Your task to perform on an android device: Empty the shopping cart on bestbuy.com. Add macbook pro 15 inch to the cart on bestbuy.com Image 0: 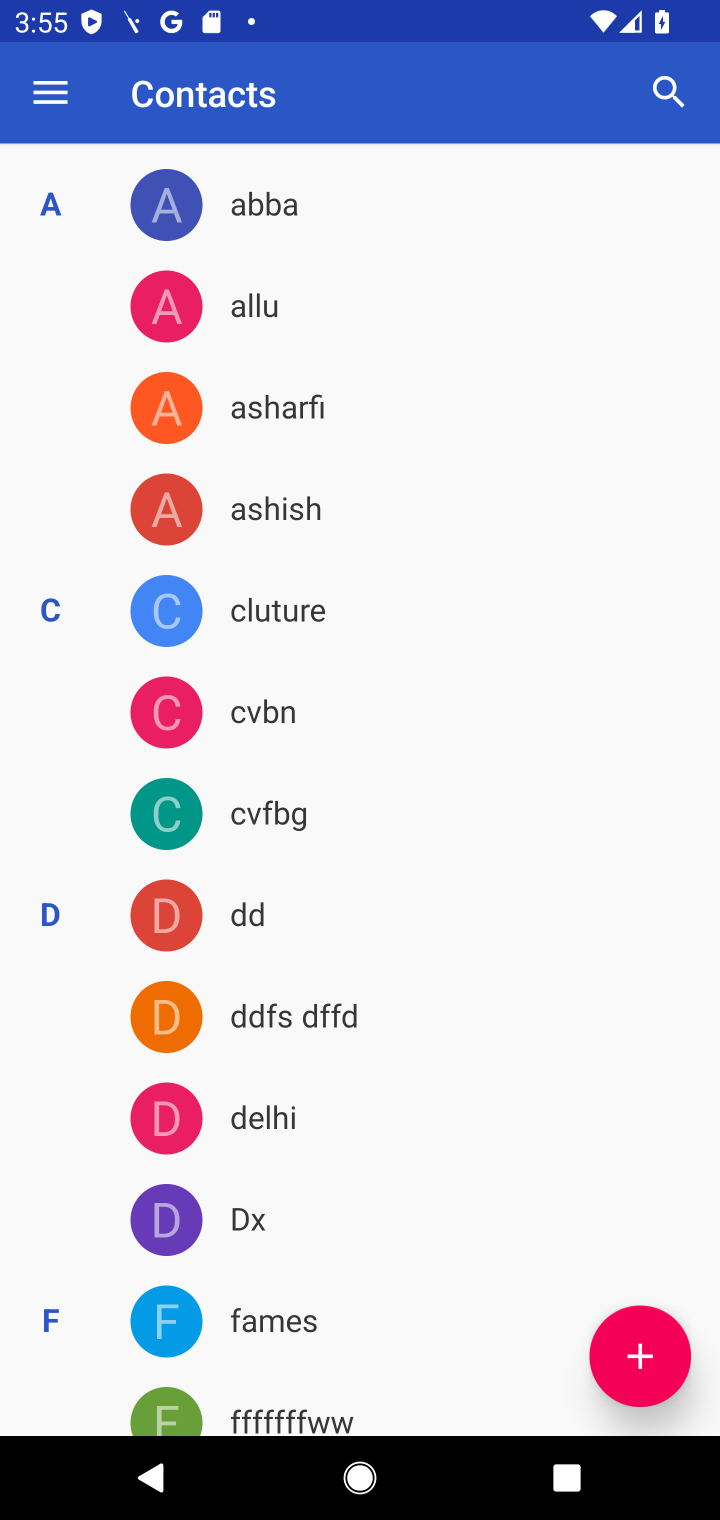
Step 0: press home button
Your task to perform on an android device: Empty the shopping cart on bestbuy.com. Add macbook pro 15 inch to the cart on bestbuy.com Image 1: 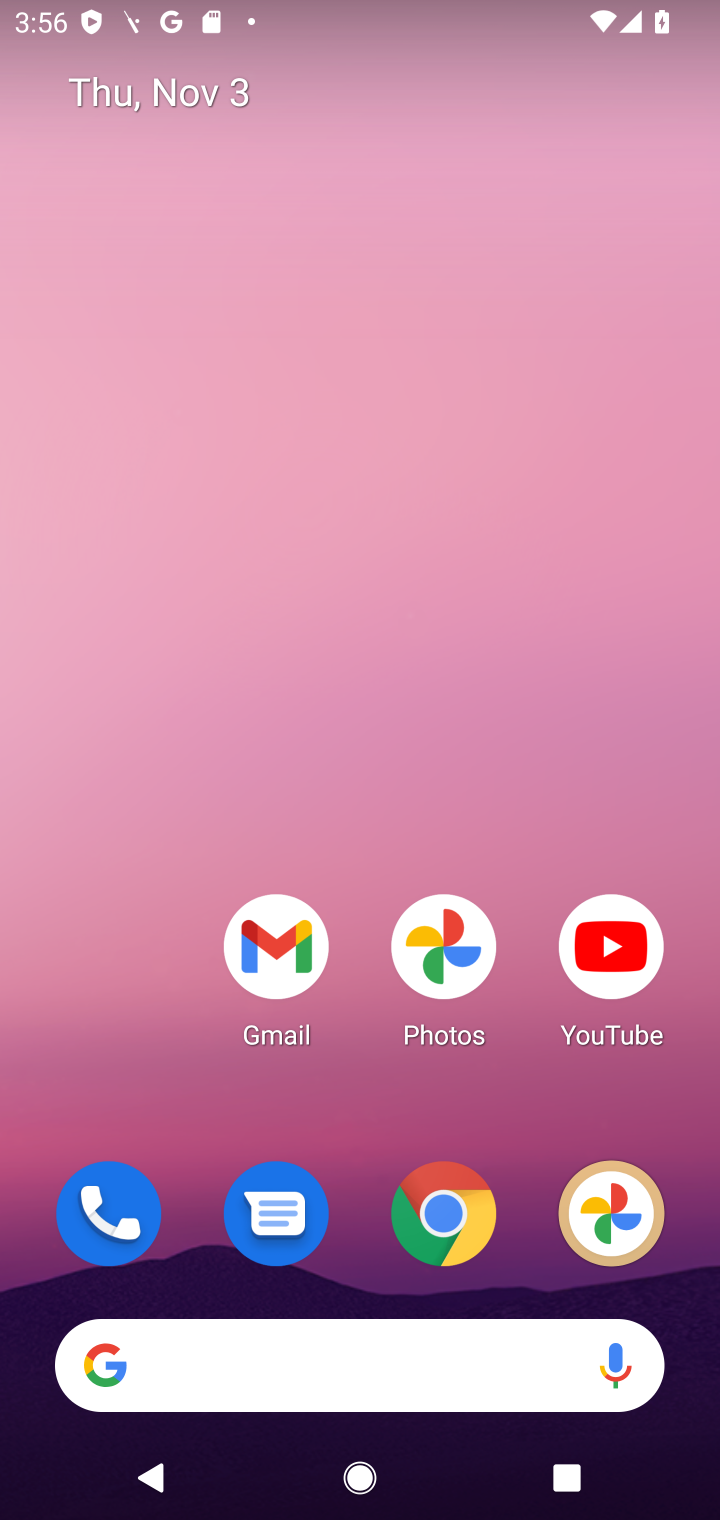
Step 1: click (449, 1242)
Your task to perform on an android device: Empty the shopping cart on bestbuy.com. Add macbook pro 15 inch to the cart on bestbuy.com Image 2: 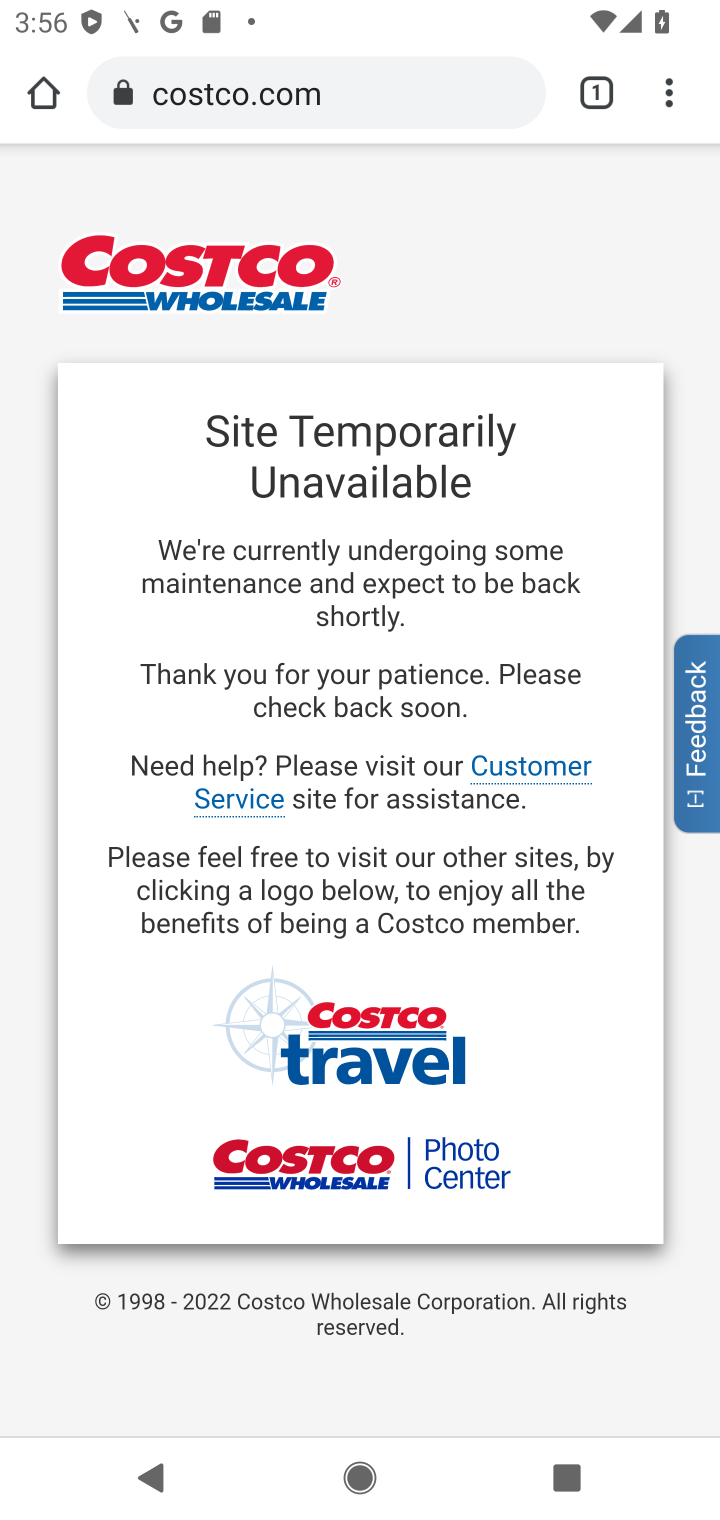
Step 2: click (301, 92)
Your task to perform on an android device: Empty the shopping cart on bestbuy.com. Add macbook pro 15 inch to the cart on bestbuy.com Image 3: 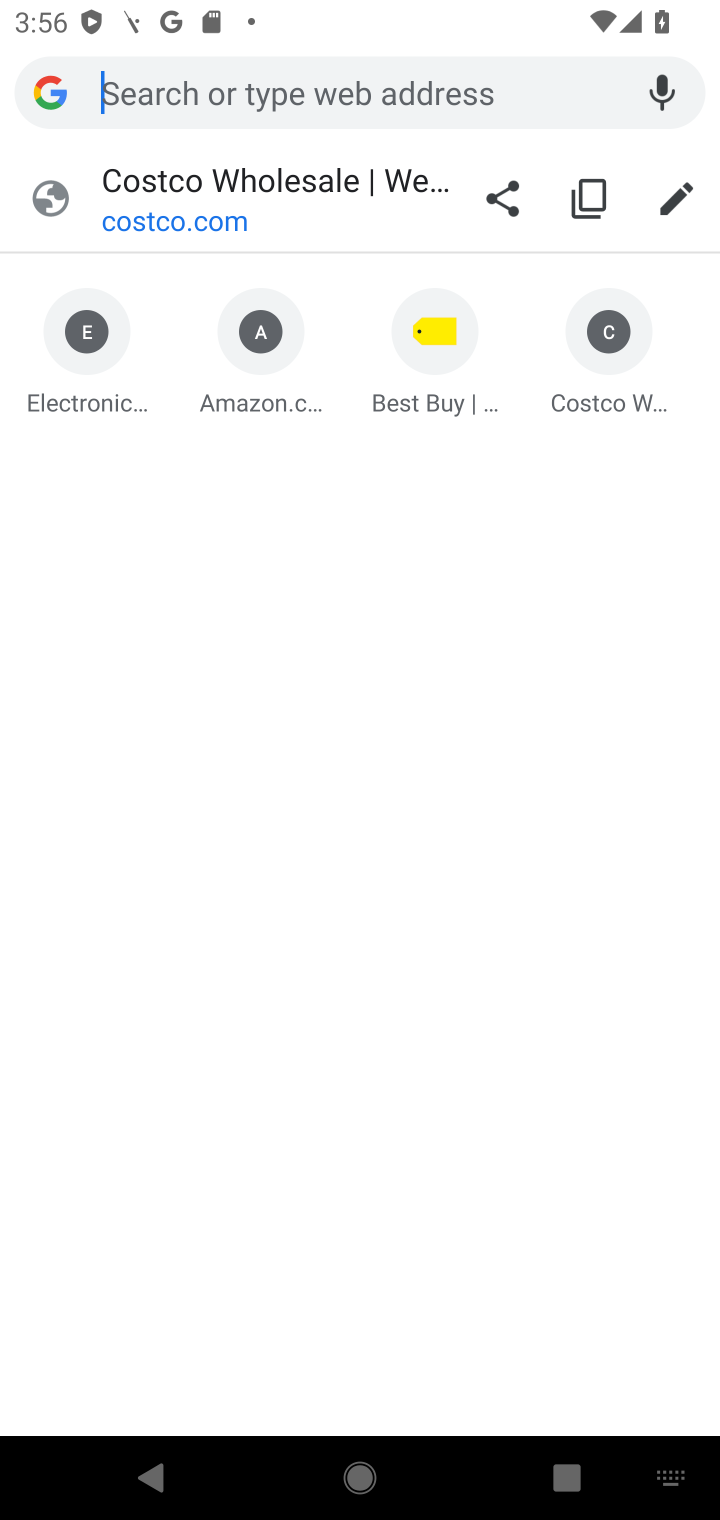
Step 3: type "bestbuy.com"
Your task to perform on an android device: Empty the shopping cart on bestbuy.com. Add macbook pro 15 inch to the cart on bestbuy.com Image 4: 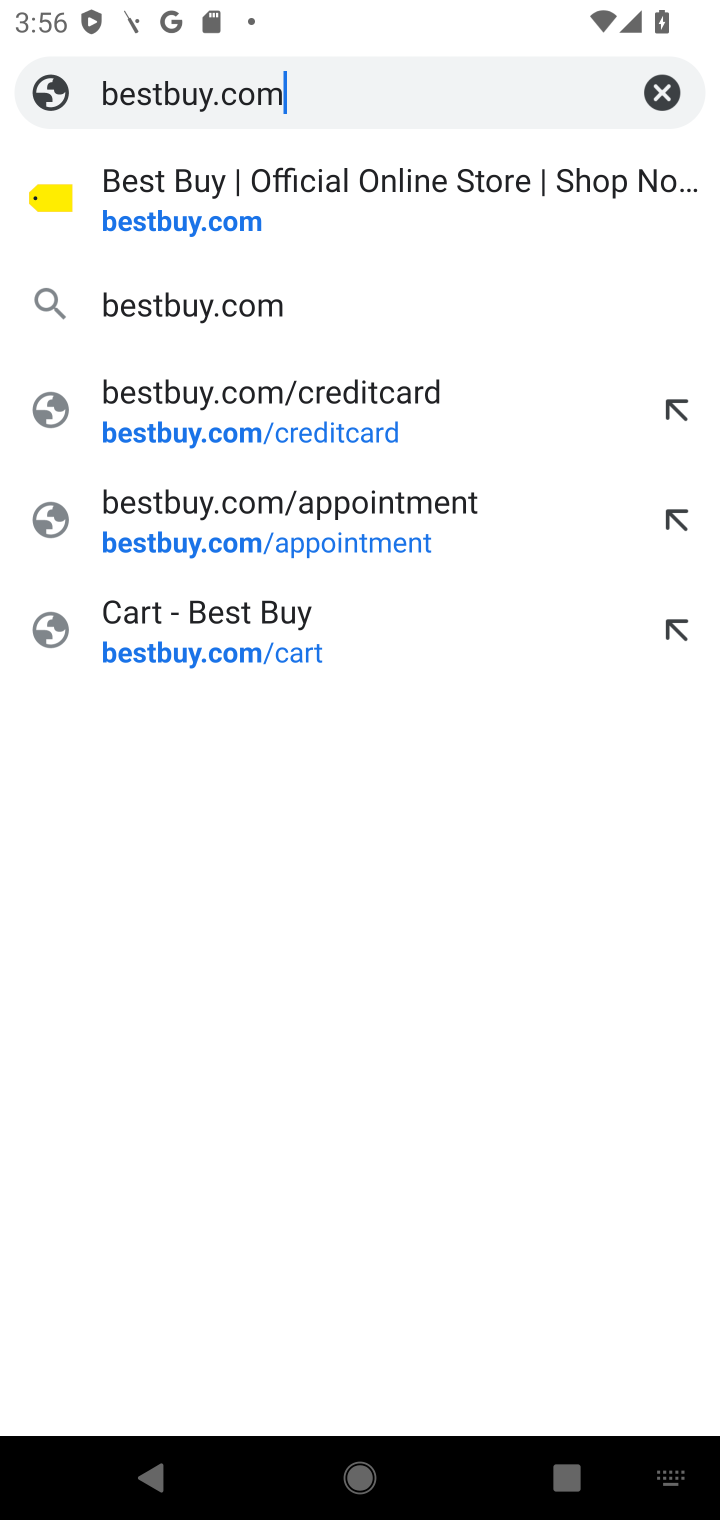
Step 4: click (168, 218)
Your task to perform on an android device: Empty the shopping cart on bestbuy.com. Add macbook pro 15 inch to the cart on bestbuy.com Image 5: 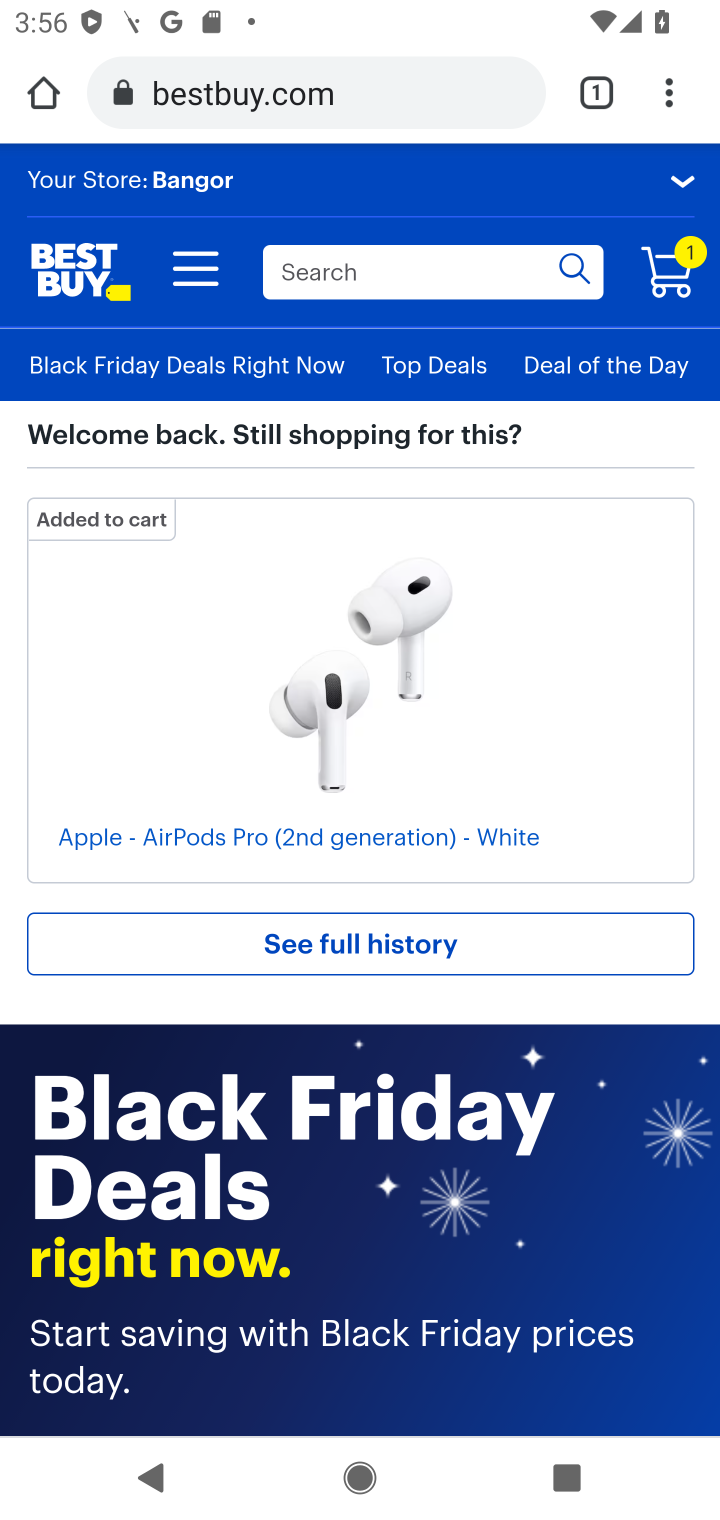
Step 5: click (675, 272)
Your task to perform on an android device: Empty the shopping cart on bestbuy.com. Add macbook pro 15 inch to the cart on bestbuy.com Image 6: 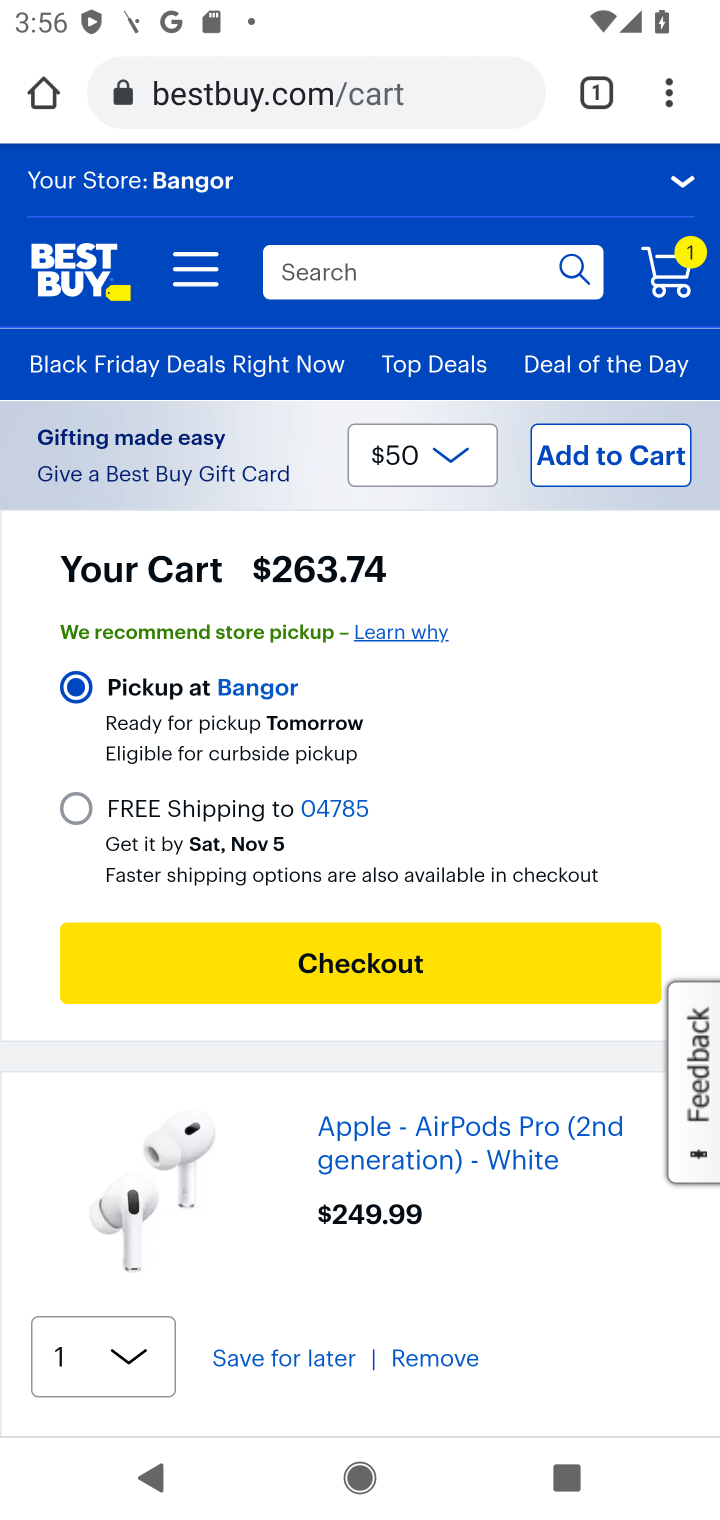
Step 6: click (444, 1360)
Your task to perform on an android device: Empty the shopping cart on bestbuy.com. Add macbook pro 15 inch to the cart on bestbuy.com Image 7: 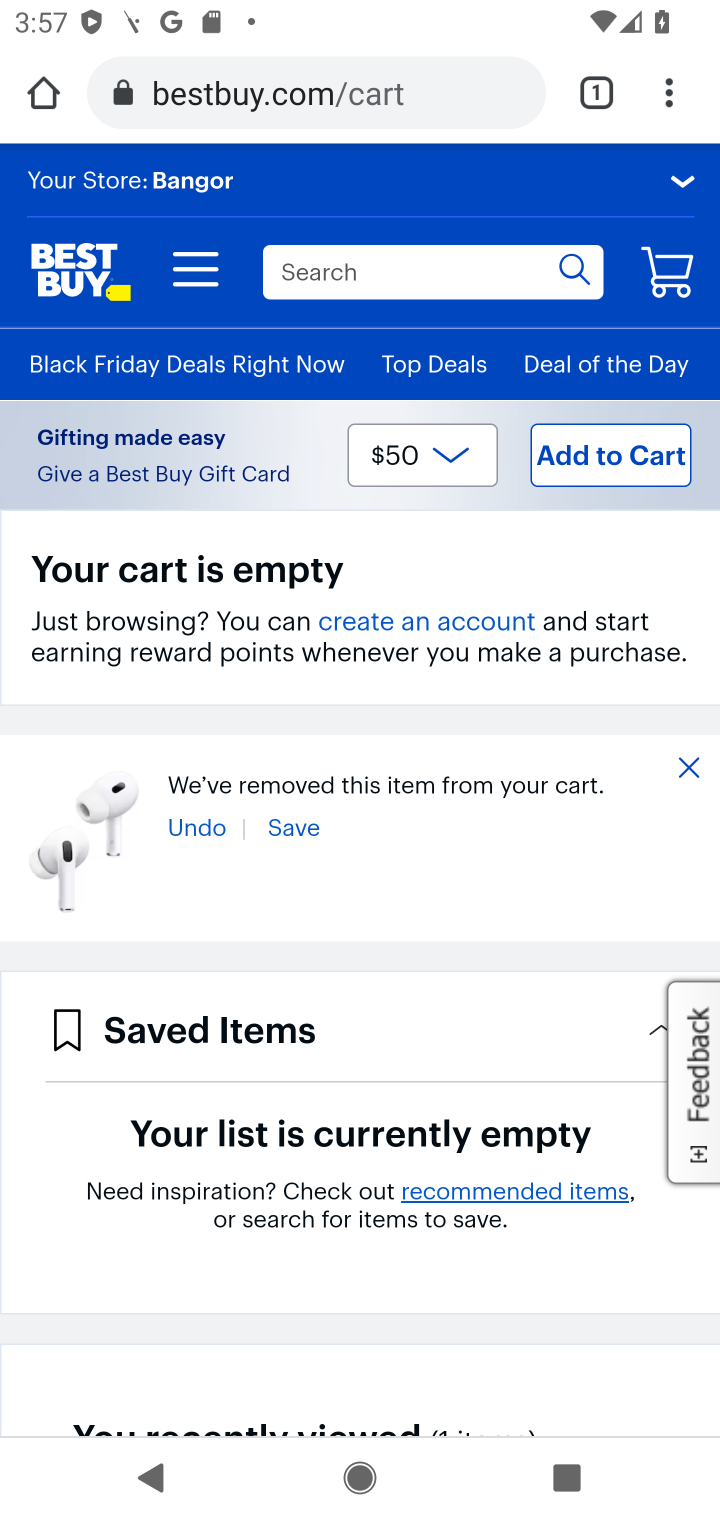
Step 7: click (290, 270)
Your task to perform on an android device: Empty the shopping cart on bestbuy.com. Add macbook pro 15 inch to the cart on bestbuy.com Image 8: 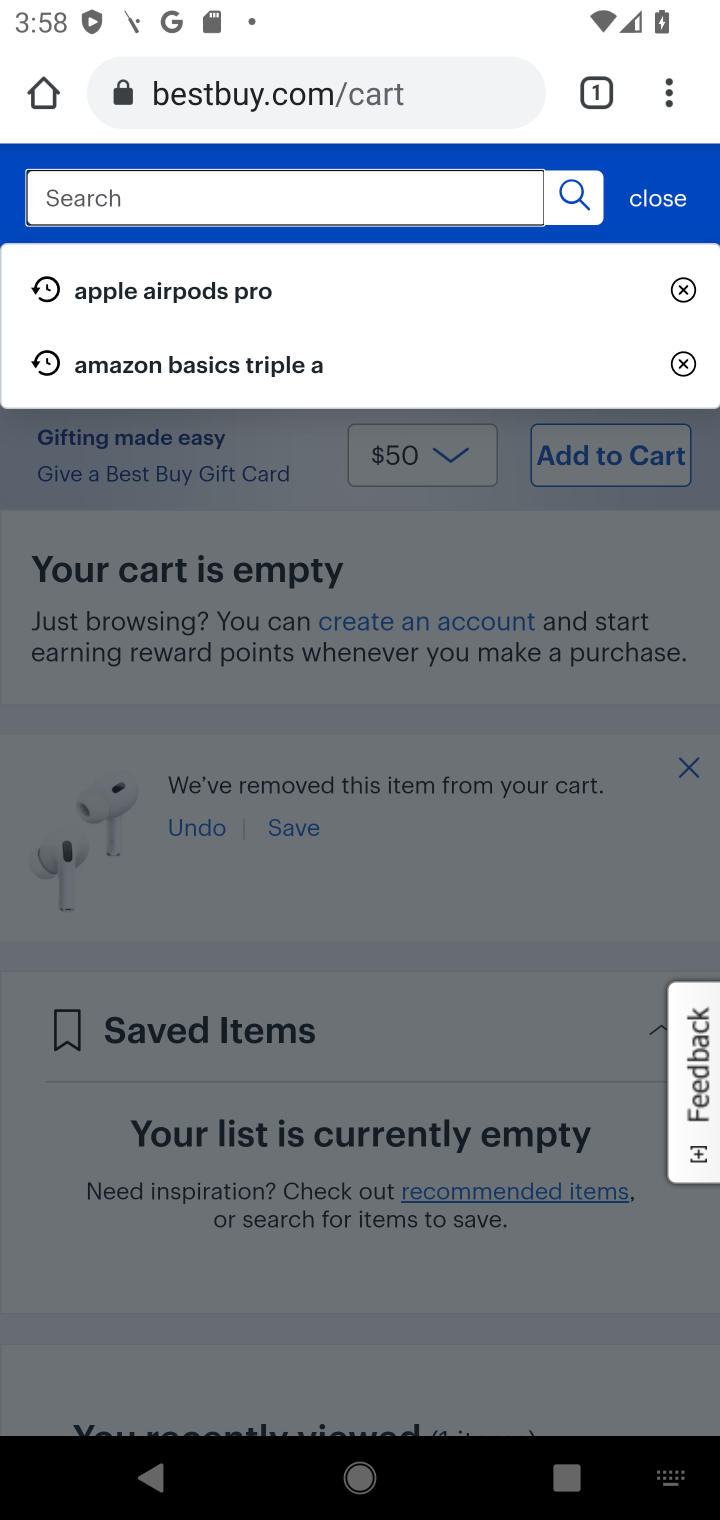
Step 8: type "macbook pro 15"
Your task to perform on an android device: Empty the shopping cart on bestbuy.com. Add macbook pro 15 inch to the cart on bestbuy.com Image 9: 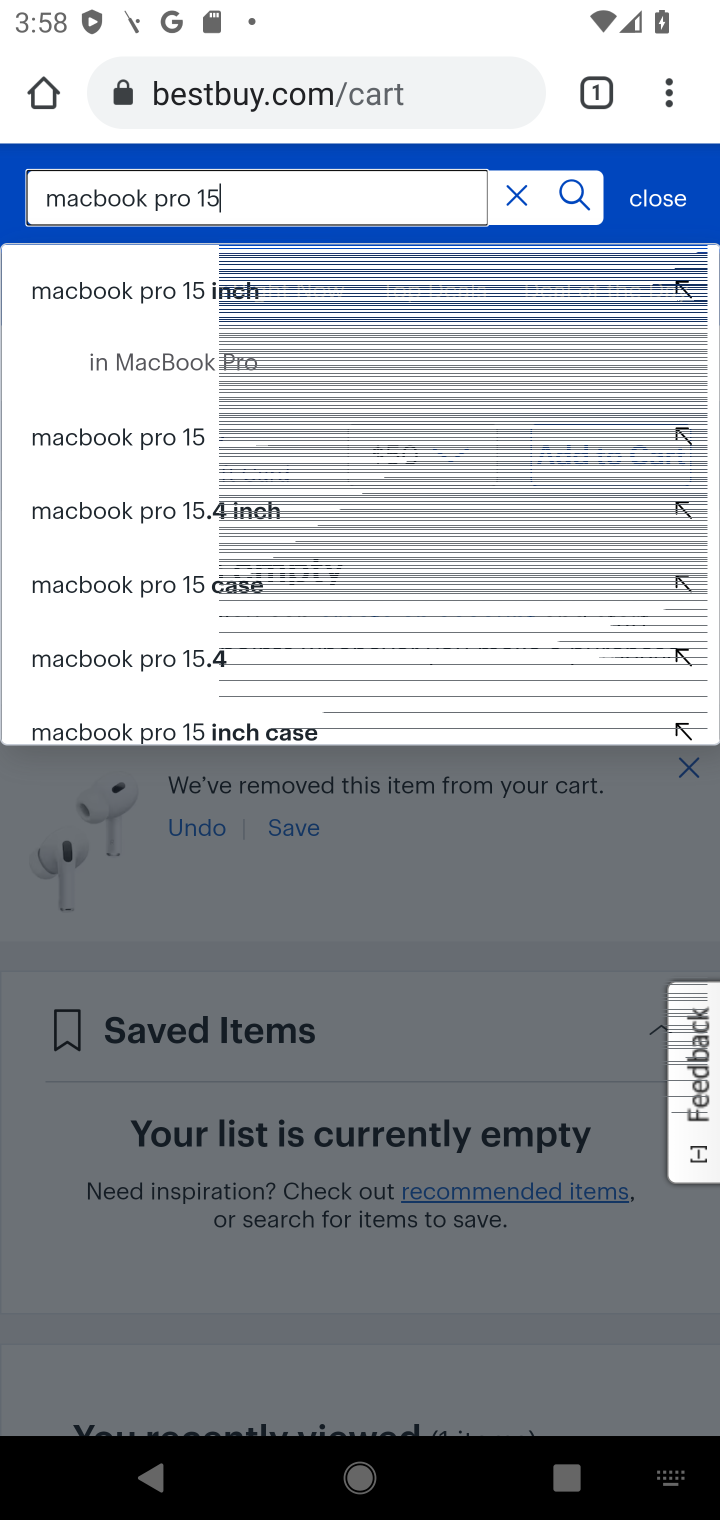
Step 9: click (164, 305)
Your task to perform on an android device: Empty the shopping cart on bestbuy.com. Add macbook pro 15 inch to the cart on bestbuy.com Image 10: 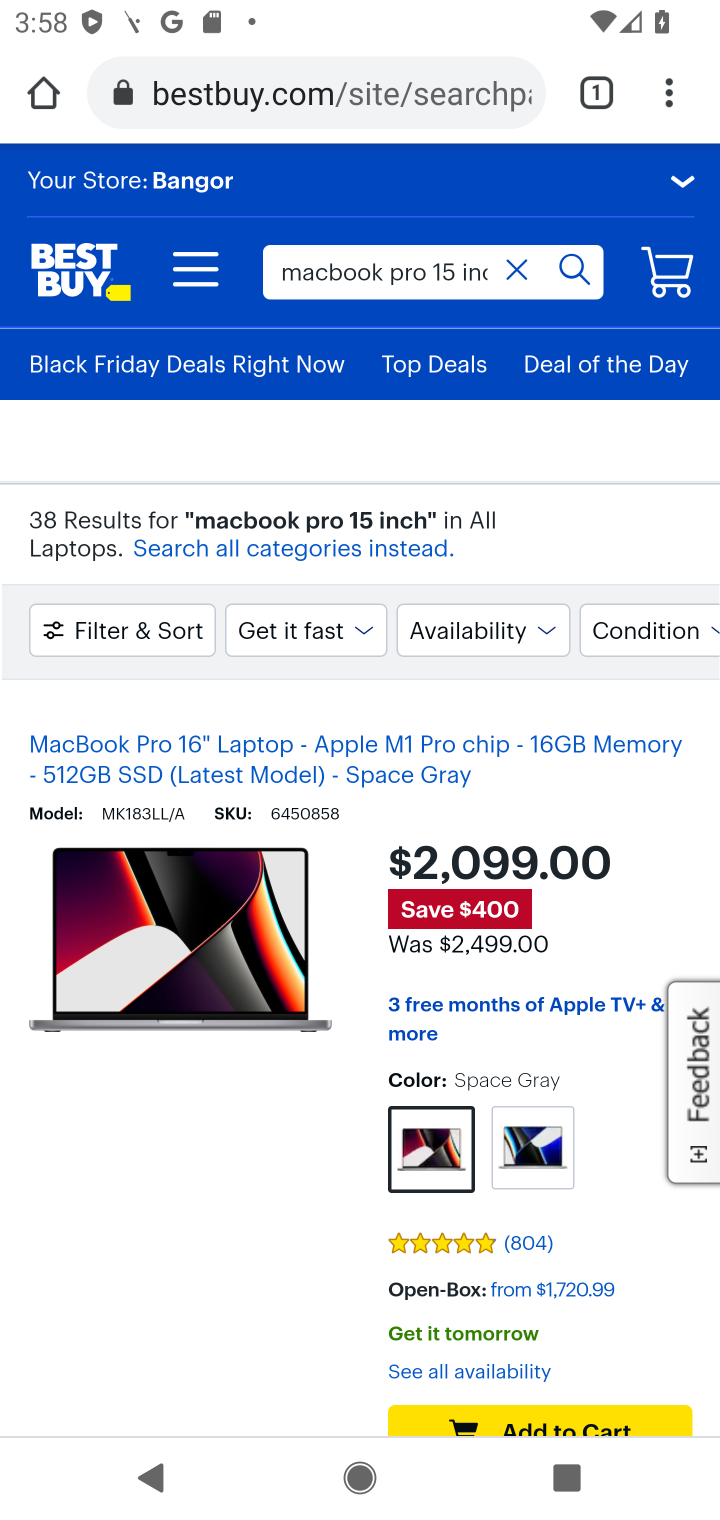
Step 10: drag from (304, 1231) to (258, 440)
Your task to perform on an android device: Empty the shopping cart on bestbuy.com. Add macbook pro 15 inch to the cart on bestbuy.com Image 11: 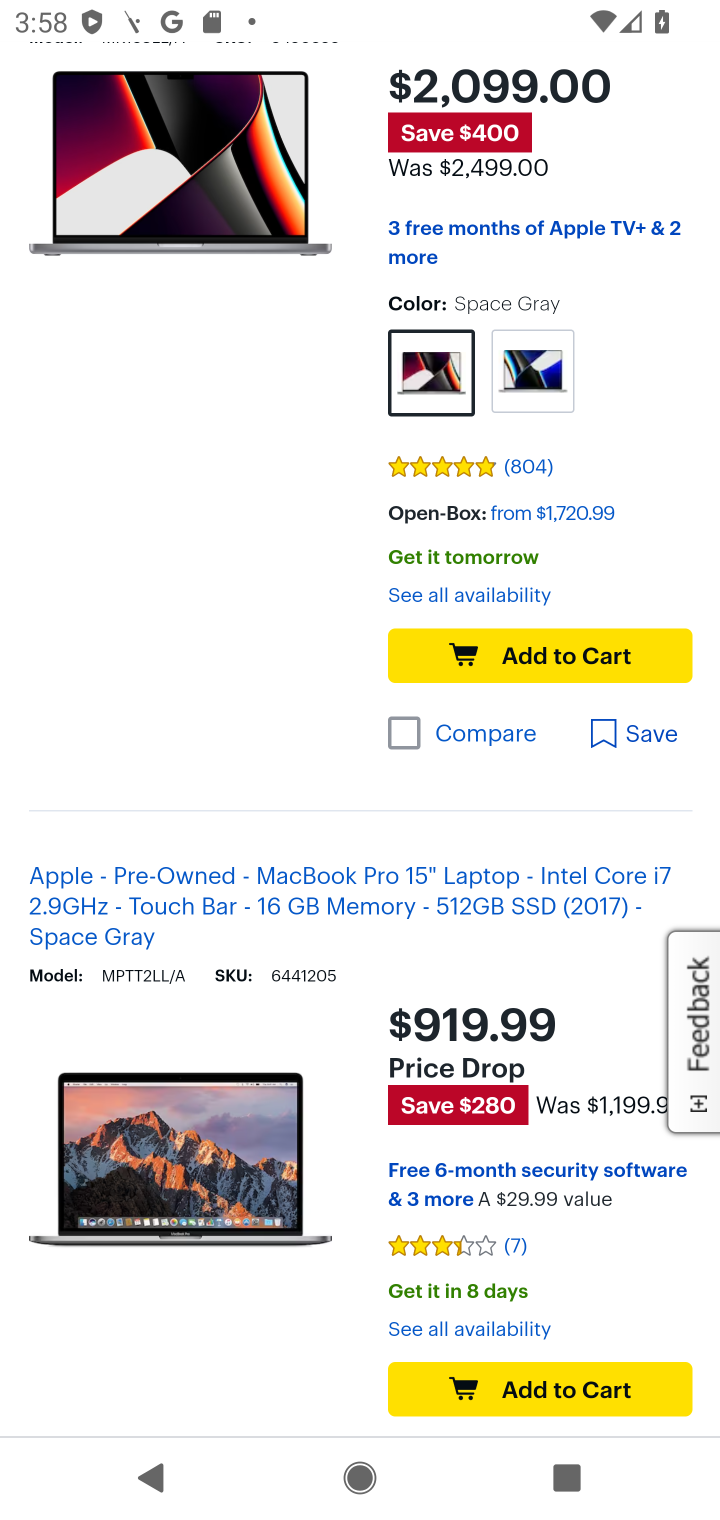
Step 11: drag from (312, 1340) to (339, 1064)
Your task to perform on an android device: Empty the shopping cart on bestbuy.com. Add macbook pro 15 inch to the cart on bestbuy.com Image 12: 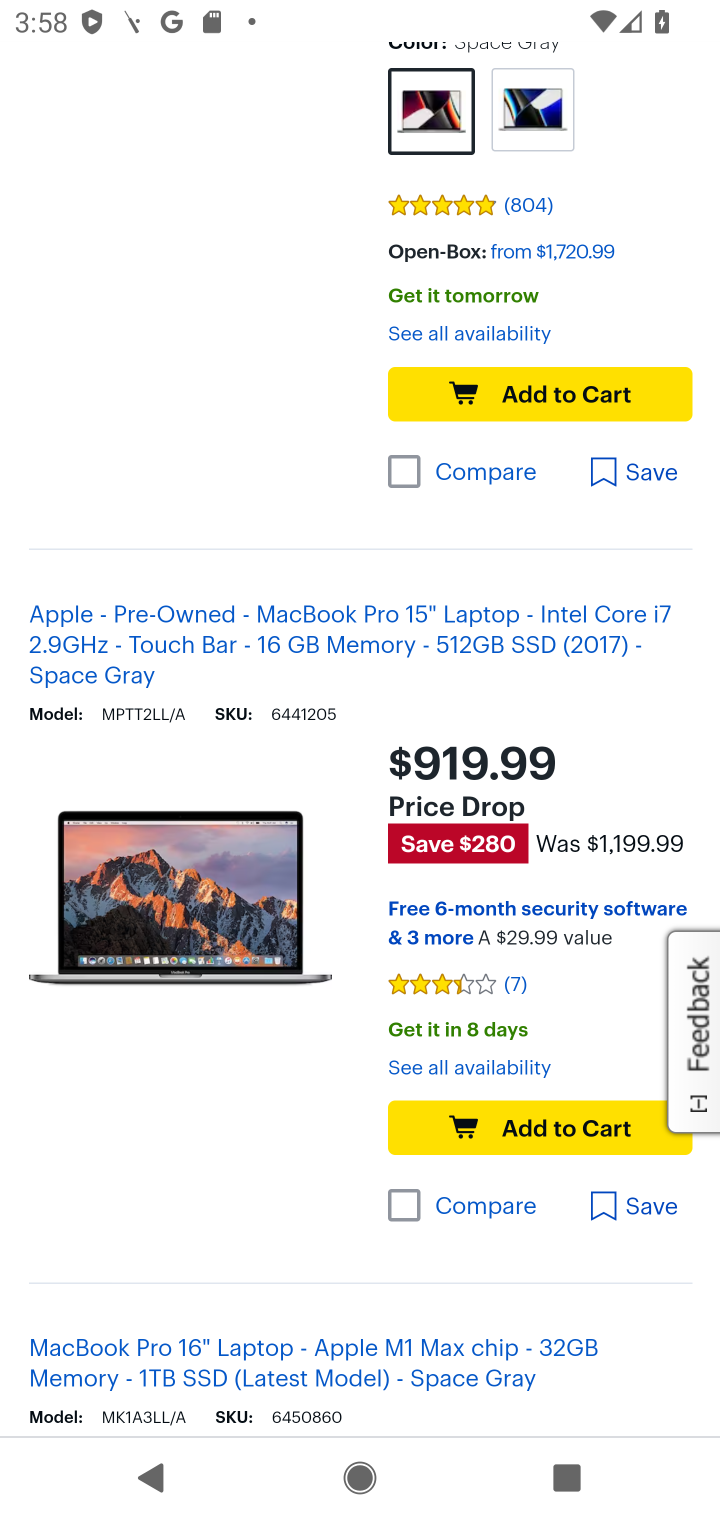
Step 12: click (292, 944)
Your task to perform on an android device: Empty the shopping cart on bestbuy.com. Add macbook pro 15 inch to the cart on bestbuy.com Image 13: 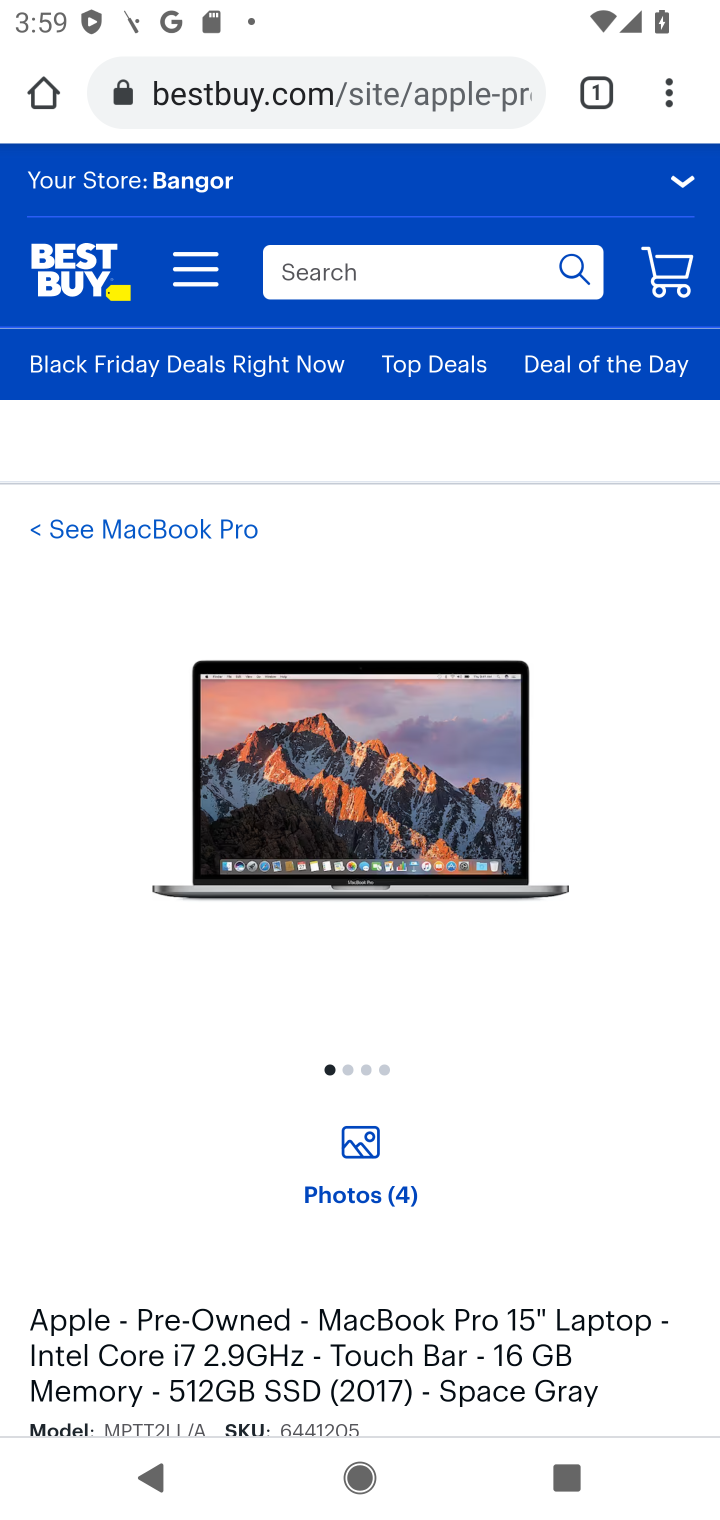
Step 13: drag from (496, 1140) to (460, 205)
Your task to perform on an android device: Empty the shopping cart on bestbuy.com. Add macbook pro 15 inch to the cart on bestbuy.com Image 14: 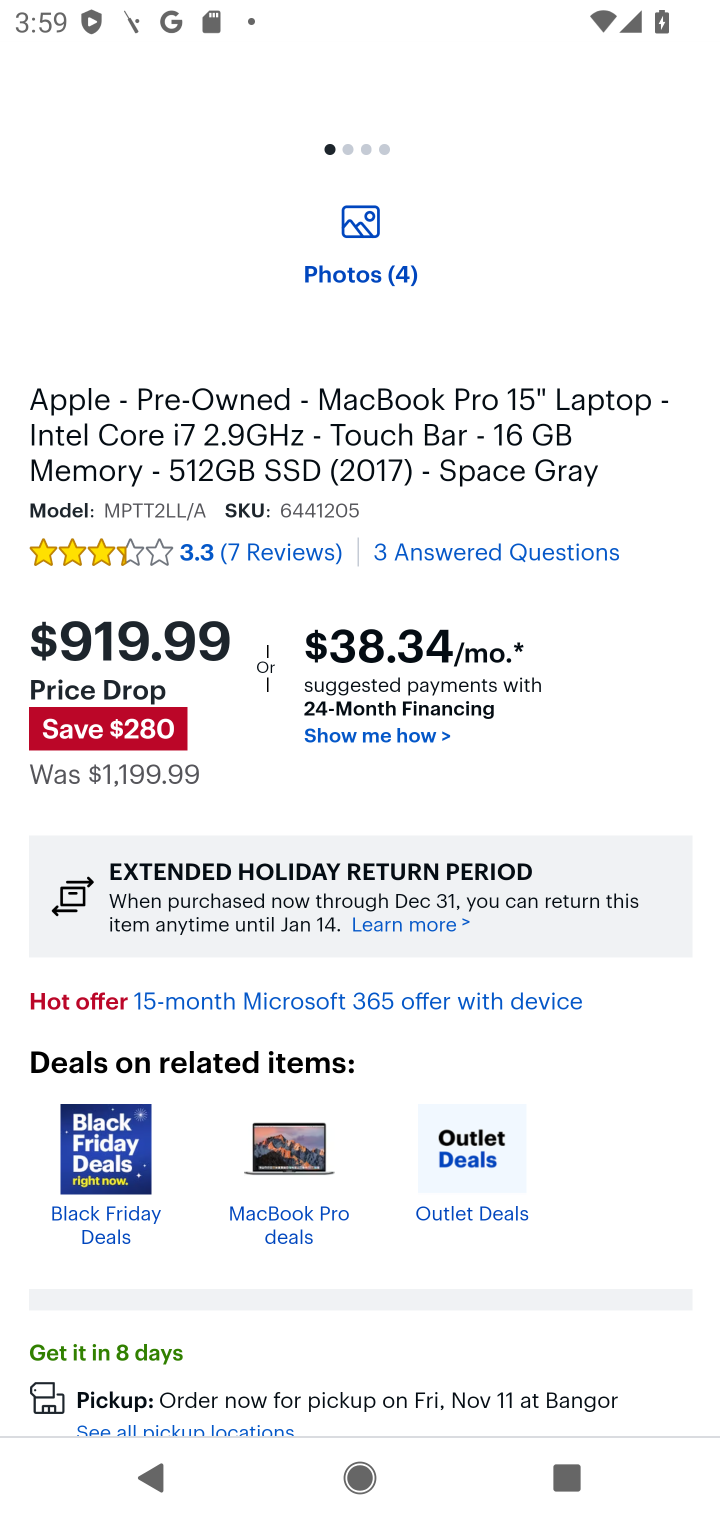
Step 14: drag from (408, 1090) to (347, 266)
Your task to perform on an android device: Empty the shopping cart on bestbuy.com. Add macbook pro 15 inch to the cart on bestbuy.com Image 15: 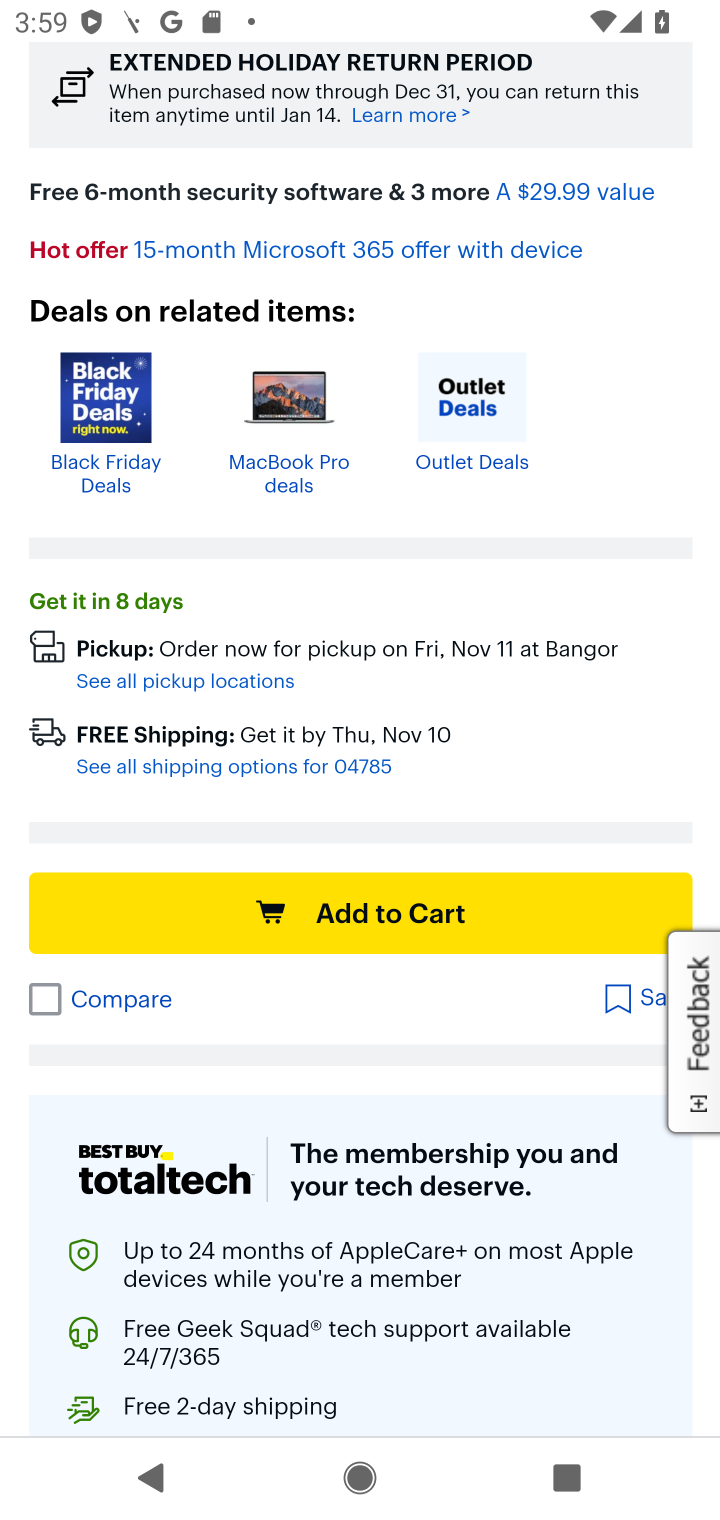
Step 15: click (360, 914)
Your task to perform on an android device: Empty the shopping cart on bestbuy.com. Add macbook pro 15 inch to the cart on bestbuy.com Image 16: 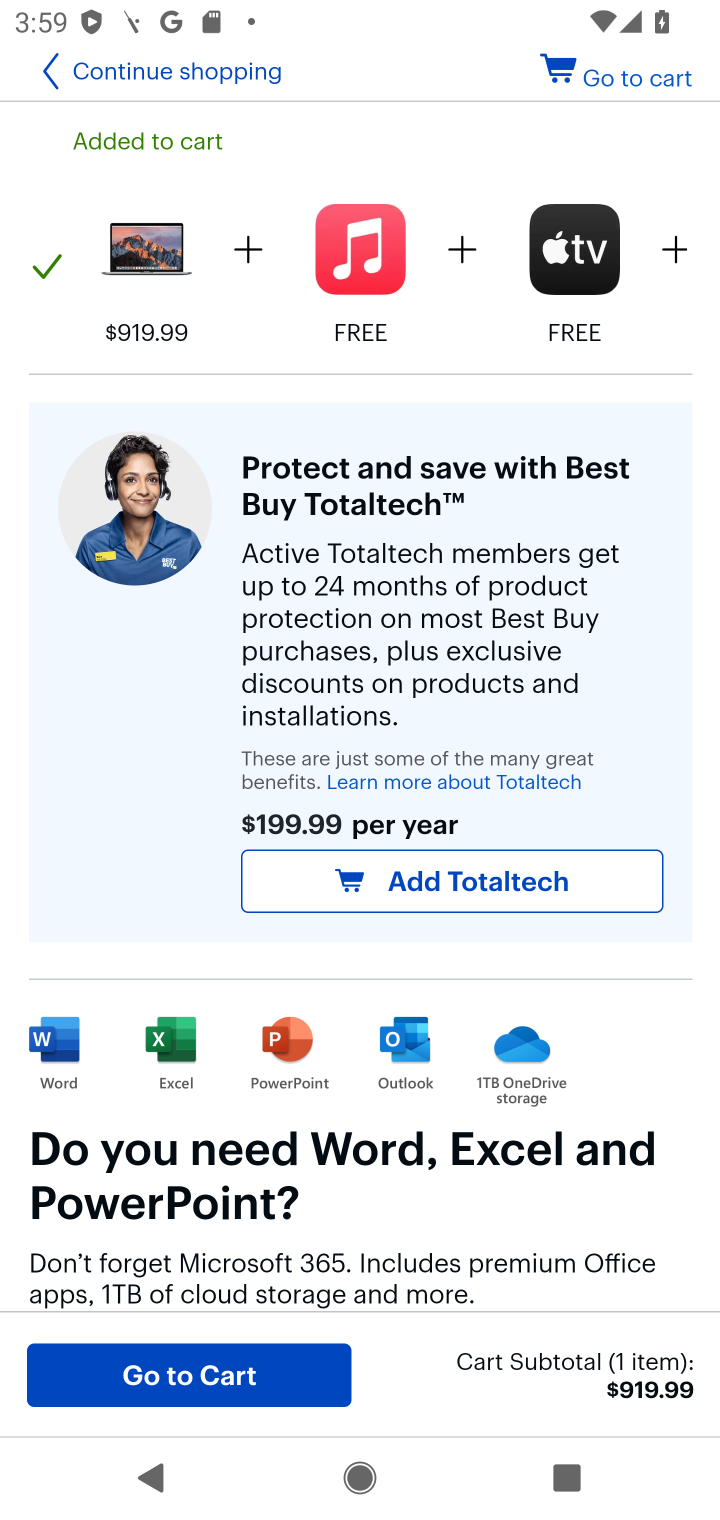
Step 16: task complete